Your task to perform on an android device: turn on showing notifications on the lock screen Image 0: 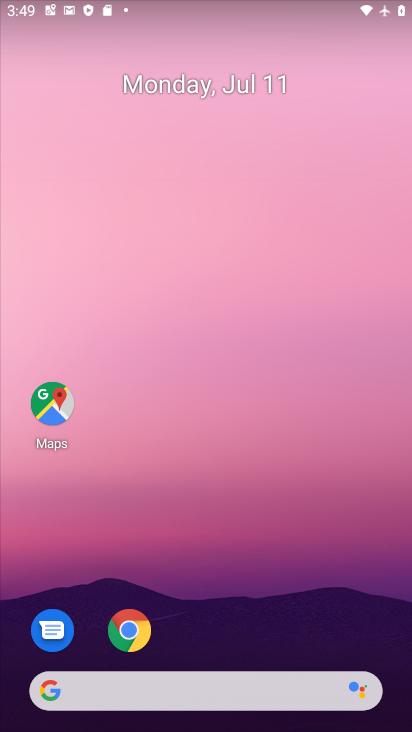
Step 0: drag from (239, 392) to (213, 216)
Your task to perform on an android device: turn on showing notifications on the lock screen Image 1: 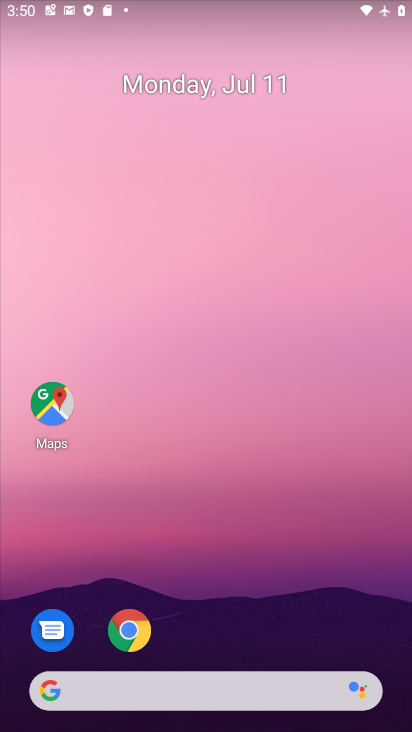
Step 1: click (145, 39)
Your task to perform on an android device: turn on showing notifications on the lock screen Image 2: 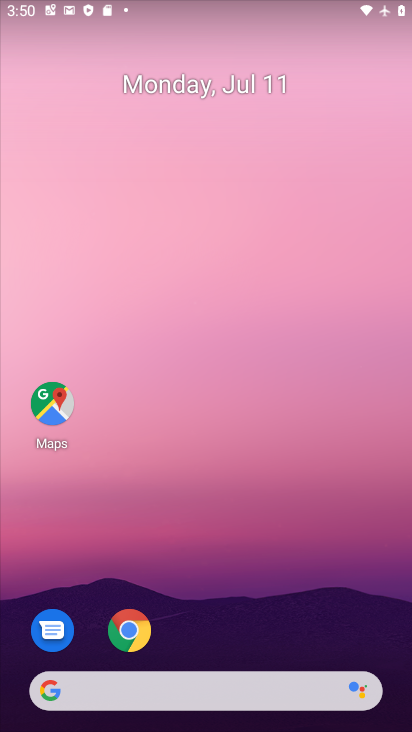
Step 2: click (162, 0)
Your task to perform on an android device: turn on showing notifications on the lock screen Image 3: 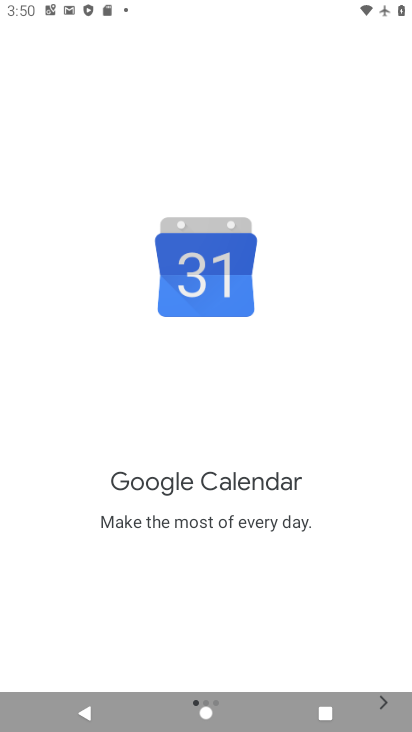
Step 3: press back button
Your task to perform on an android device: turn on showing notifications on the lock screen Image 4: 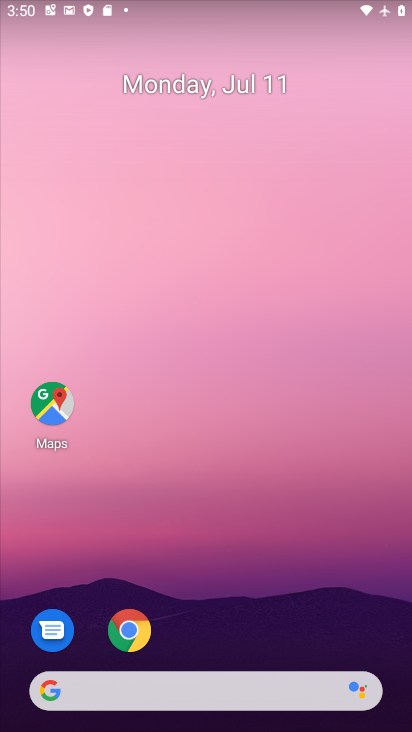
Step 4: drag from (248, 707) to (117, 28)
Your task to perform on an android device: turn on showing notifications on the lock screen Image 5: 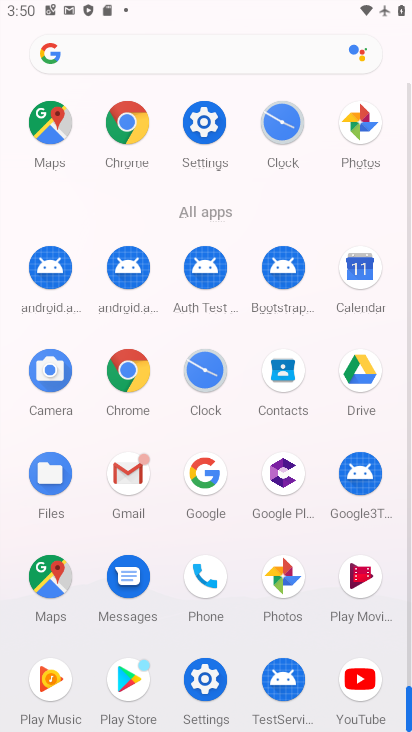
Step 5: click (199, 122)
Your task to perform on an android device: turn on showing notifications on the lock screen Image 6: 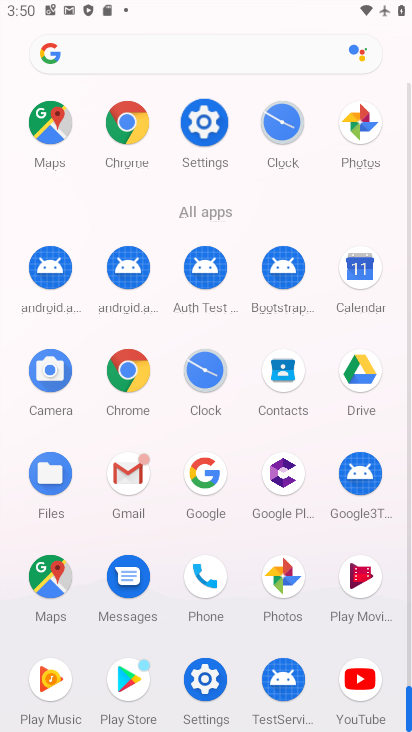
Step 6: click (200, 131)
Your task to perform on an android device: turn on showing notifications on the lock screen Image 7: 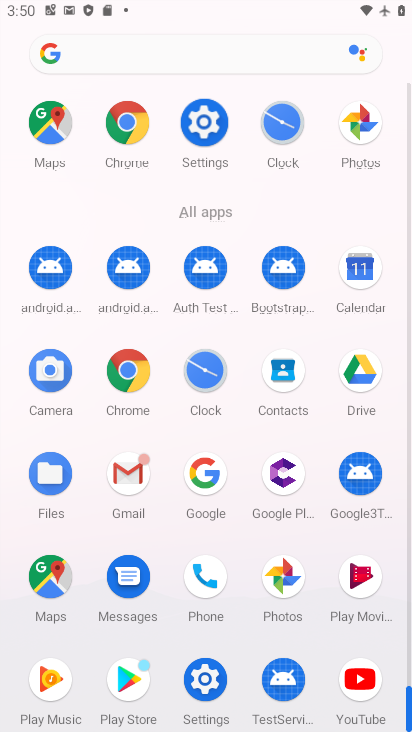
Step 7: click (202, 136)
Your task to perform on an android device: turn on showing notifications on the lock screen Image 8: 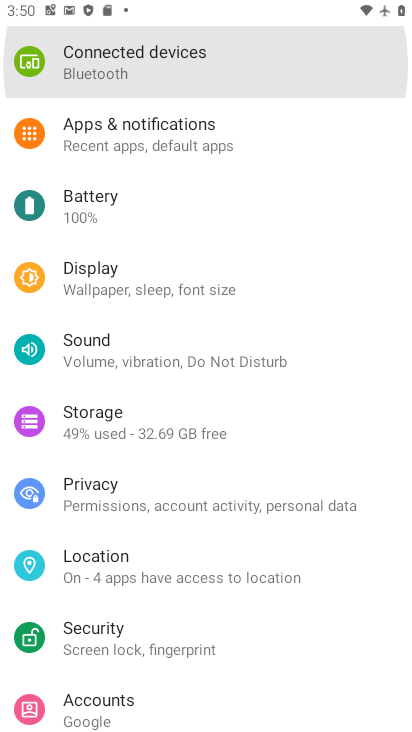
Step 8: click (207, 126)
Your task to perform on an android device: turn on showing notifications on the lock screen Image 9: 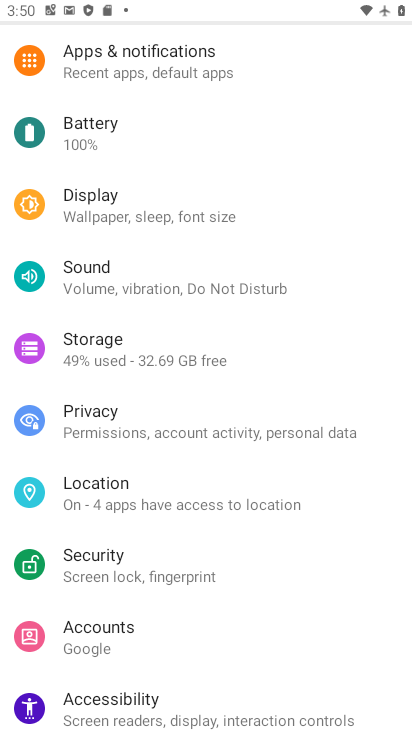
Step 9: click (207, 126)
Your task to perform on an android device: turn on showing notifications on the lock screen Image 10: 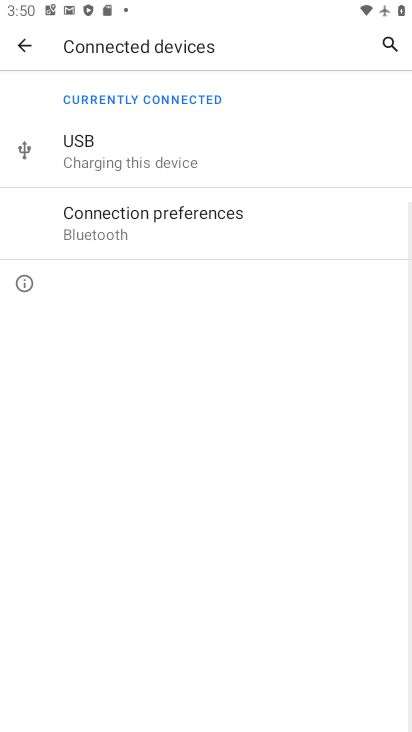
Step 10: click (14, 48)
Your task to perform on an android device: turn on showing notifications on the lock screen Image 11: 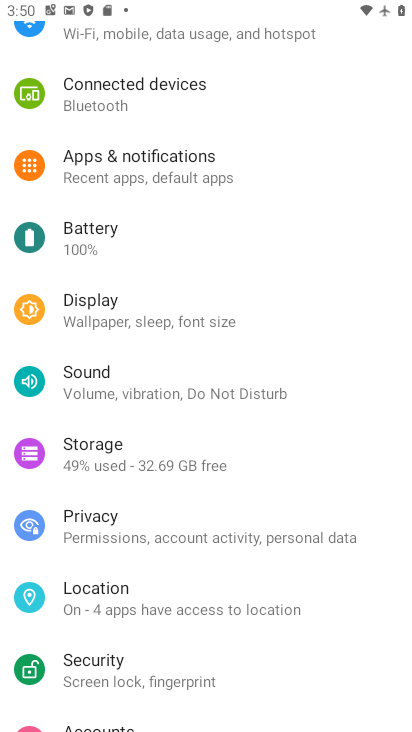
Step 11: click (137, 170)
Your task to perform on an android device: turn on showing notifications on the lock screen Image 12: 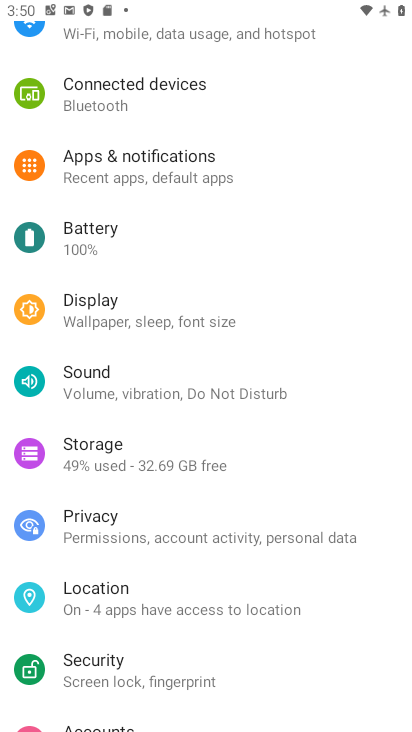
Step 12: click (137, 170)
Your task to perform on an android device: turn on showing notifications on the lock screen Image 13: 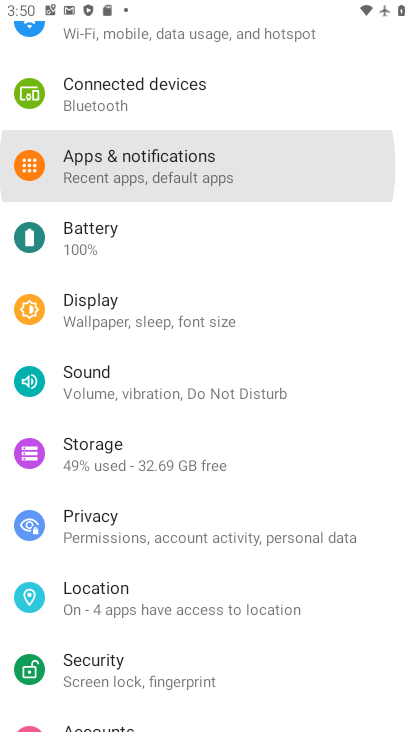
Step 13: click (137, 170)
Your task to perform on an android device: turn on showing notifications on the lock screen Image 14: 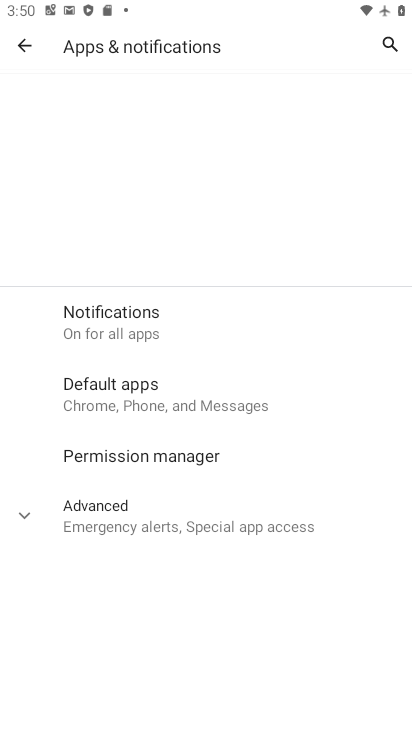
Step 14: click (142, 173)
Your task to perform on an android device: turn on showing notifications on the lock screen Image 15: 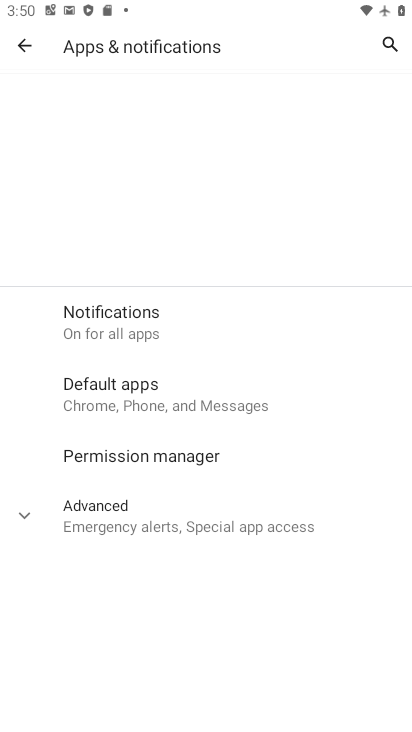
Step 15: click (142, 173)
Your task to perform on an android device: turn on showing notifications on the lock screen Image 16: 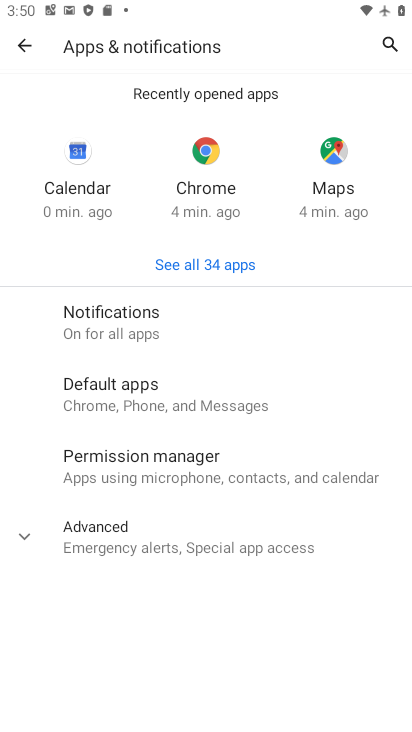
Step 16: click (93, 319)
Your task to perform on an android device: turn on showing notifications on the lock screen Image 17: 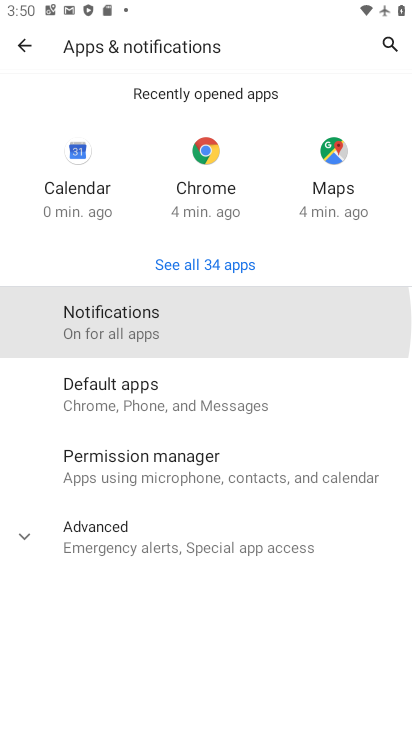
Step 17: click (93, 319)
Your task to perform on an android device: turn on showing notifications on the lock screen Image 18: 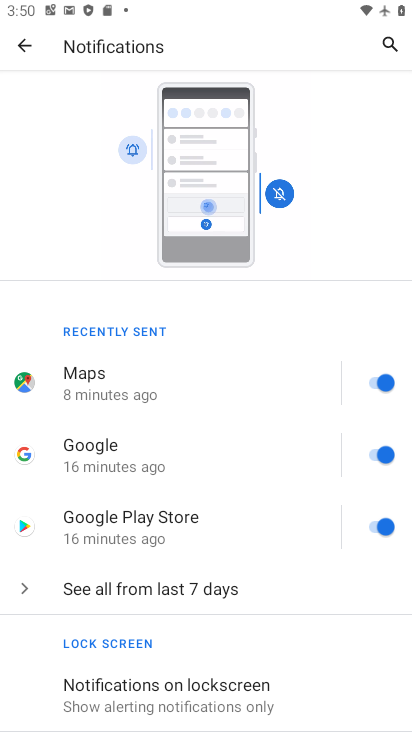
Step 18: drag from (185, 521) to (114, 50)
Your task to perform on an android device: turn on showing notifications on the lock screen Image 19: 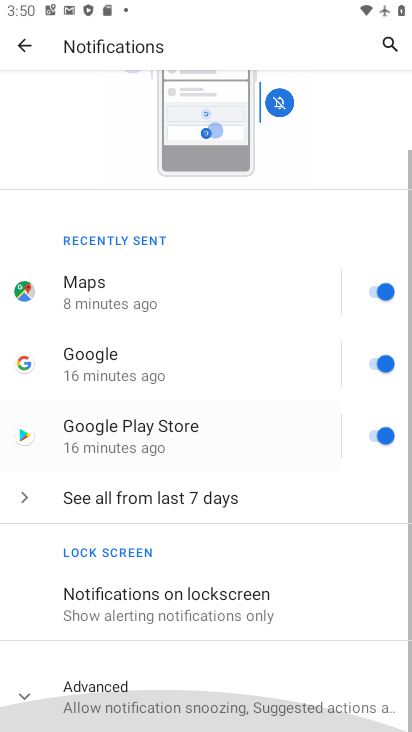
Step 19: drag from (179, 380) to (179, 129)
Your task to perform on an android device: turn on showing notifications on the lock screen Image 20: 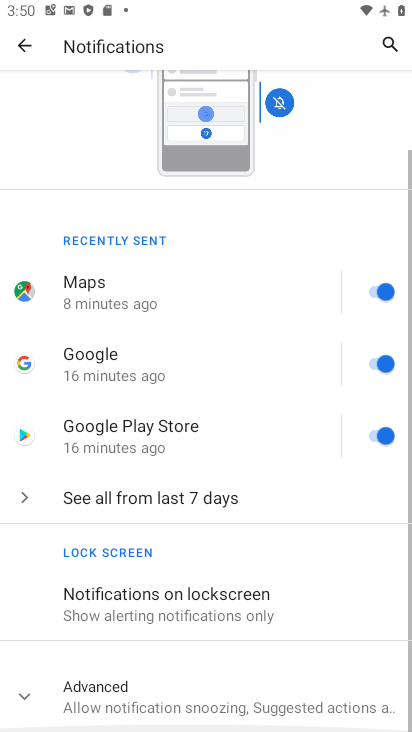
Step 20: drag from (201, 420) to (186, 102)
Your task to perform on an android device: turn on showing notifications on the lock screen Image 21: 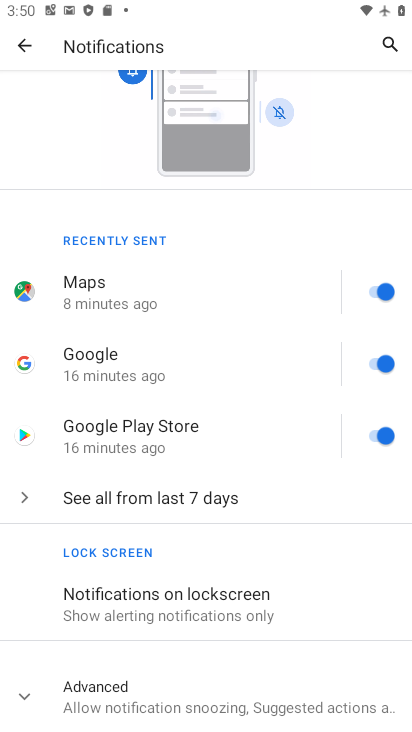
Step 21: click (169, 601)
Your task to perform on an android device: turn on showing notifications on the lock screen Image 22: 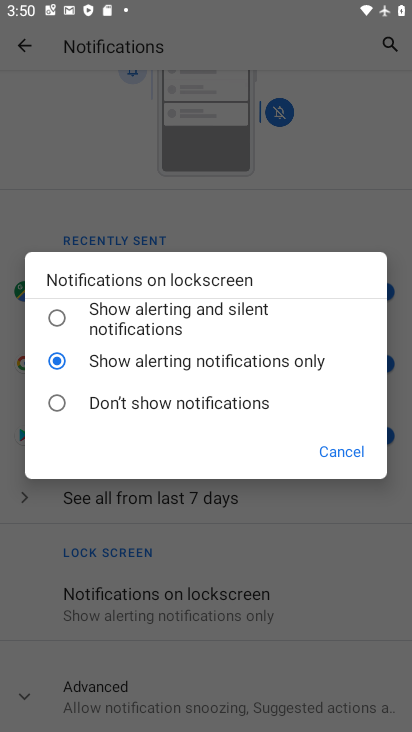
Step 22: click (58, 316)
Your task to perform on an android device: turn on showing notifications on the lock screen Image 23: 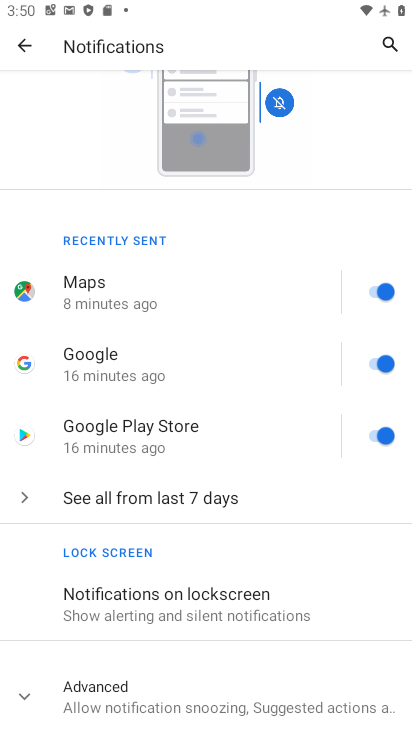
Step 23: task complete